Your task to perform on an android device: Is it going to rain this weekend? Image 0: 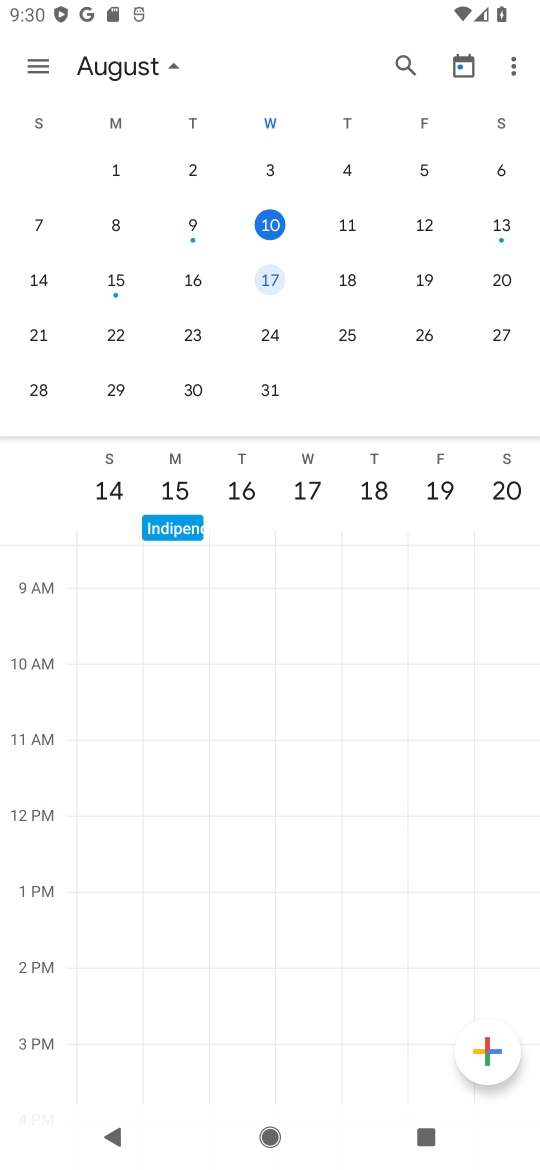
Step 0: press home button
Your task to perform on an android device: Is it going to rain this weekend? Image 1: 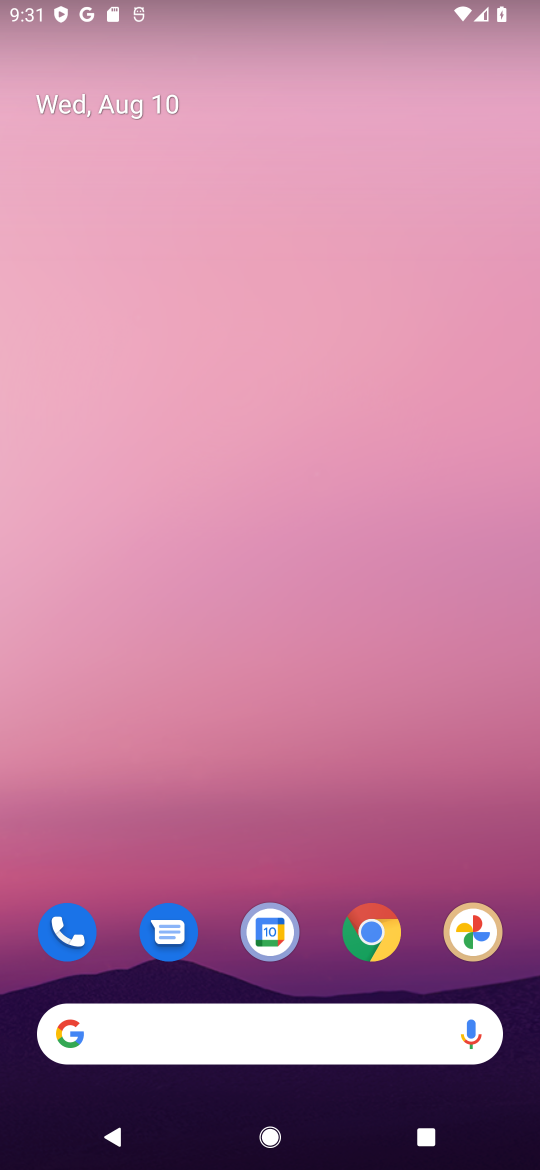
Step 1: click (216, 1034)
Your task to perform on an android device: Is it going to rain this weekend? Image 2: 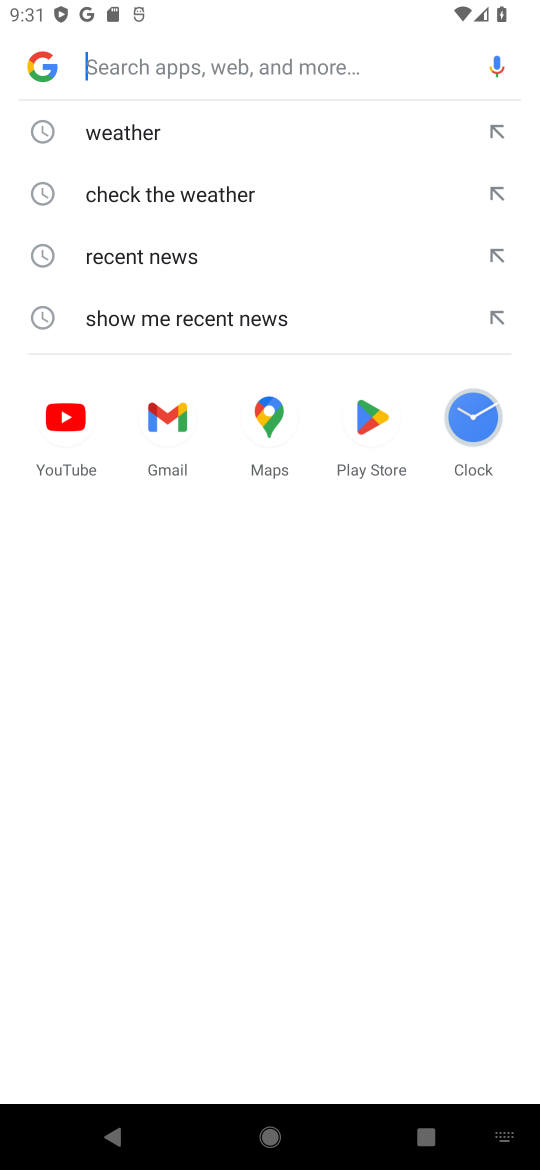
Step 2: click (134, 120)
Your task to perform on an android device: Is it going to rain this weekend? Image 3: 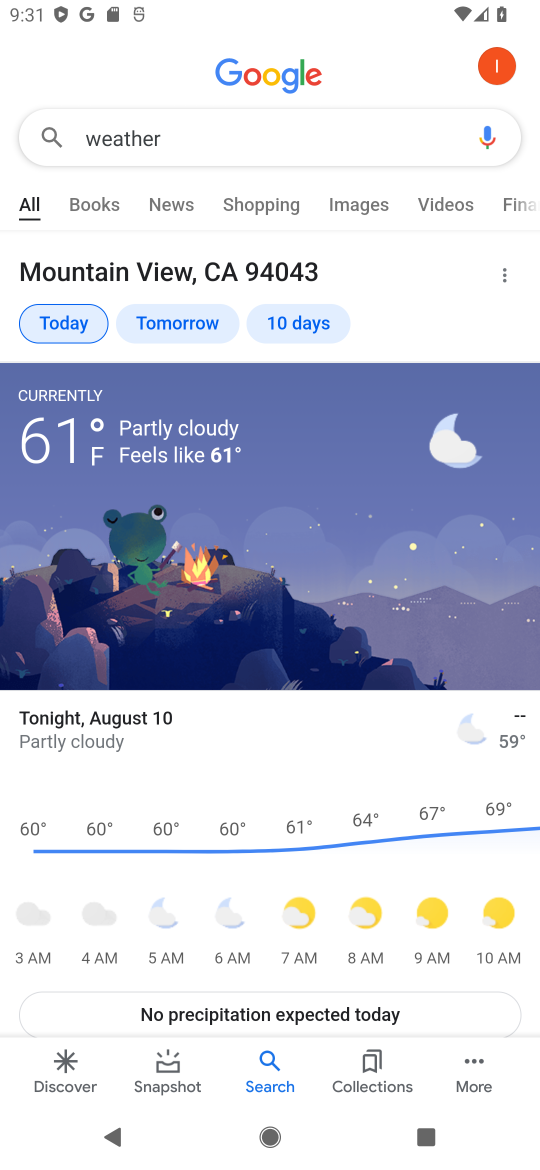
Step 3: click (295, 321)
Your task to perform on an android device: Is it going to rain this weekend? Image 4: 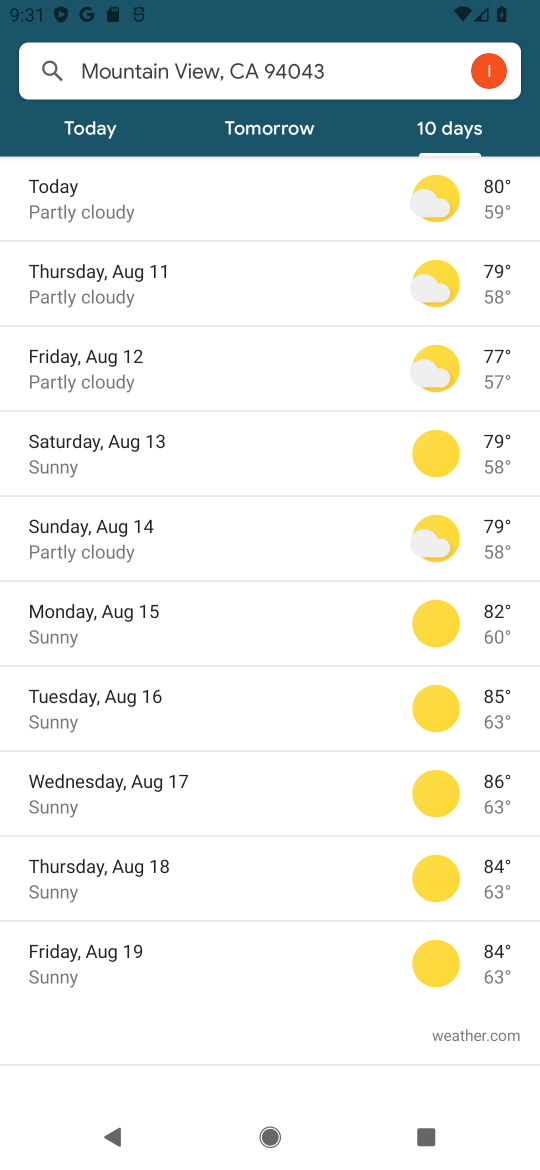
Step 4: task complete